Your task to perform on an android device: Go to Android settings Image 0: 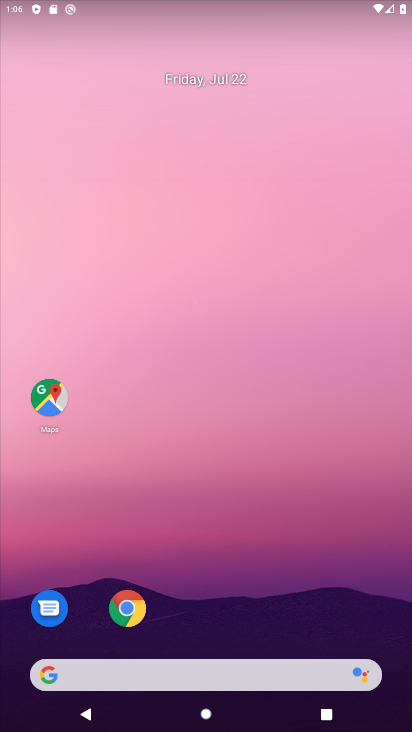
Step 0: drag from (395, 669) to (327, 45)
Your task to perform on an android device: Go to Android settings Image 1: 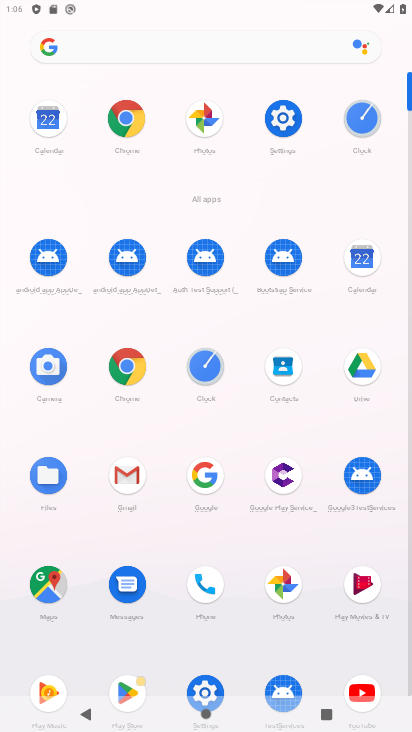
Step 1: click (279, 120)
Your task to perform on an android device: Go to Android settings Image 2: 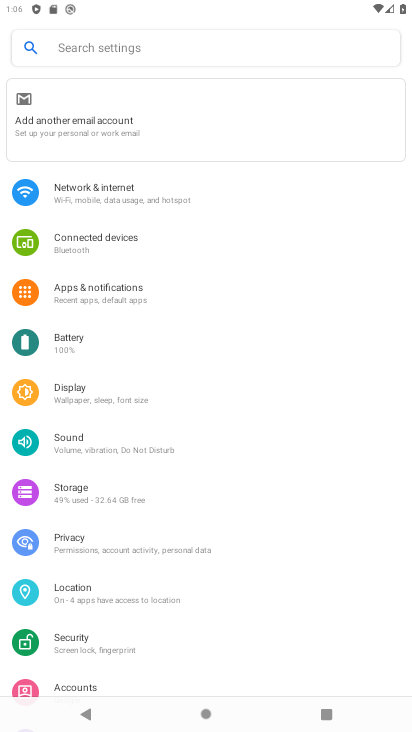
Step 2: task complete